Your task to perform on an android device: Clear the cart on amazon. Image 0: 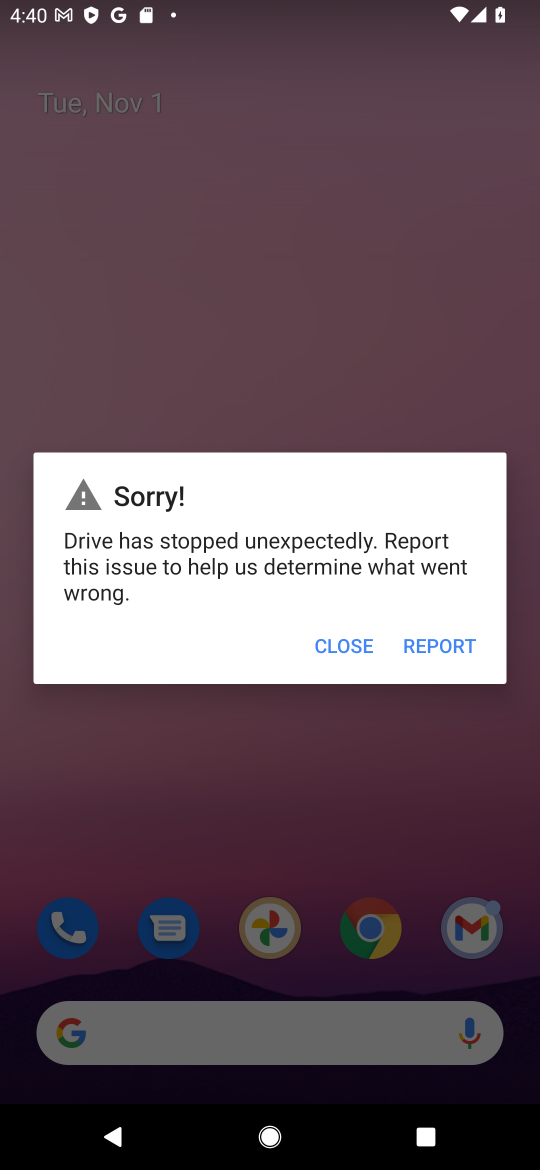
Step 0: press home button
Your task to perform on an android device: Clear the cart on amazon. Image 1: 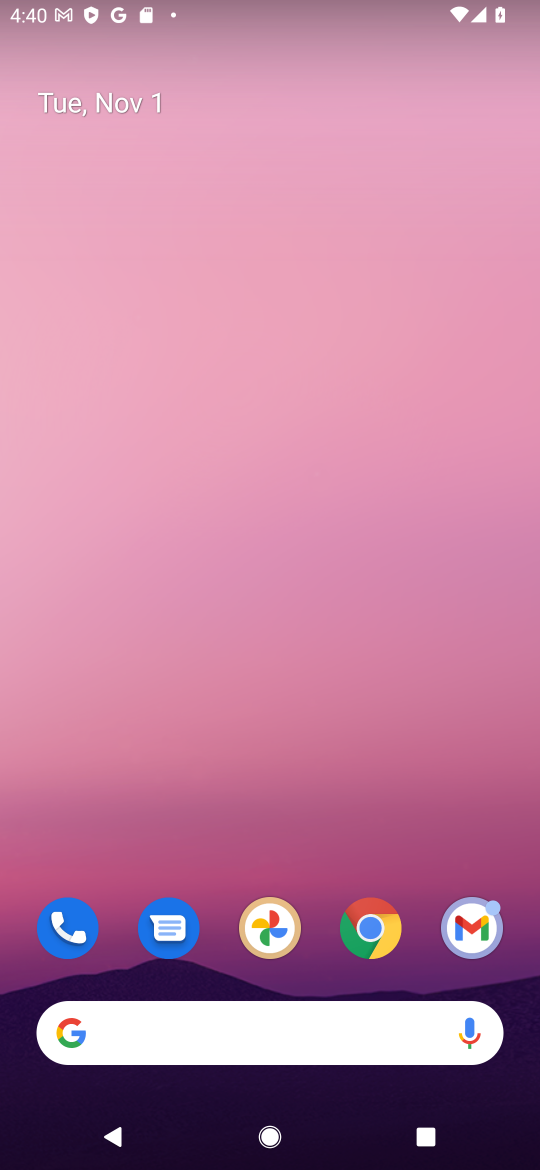
Step 1: click (368, 946)
Your task to perform on an android device: Clear the cart on amazon. Image 2: 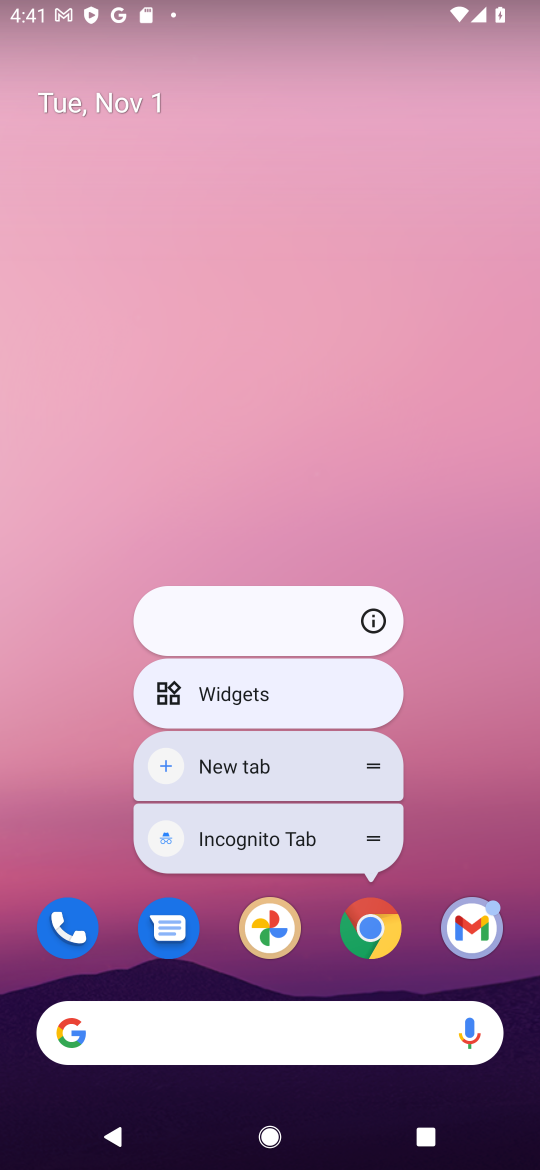
Step 2: click (386, 945)
Your task to perform on an android device: Clear the cart on amazon. Image 3: 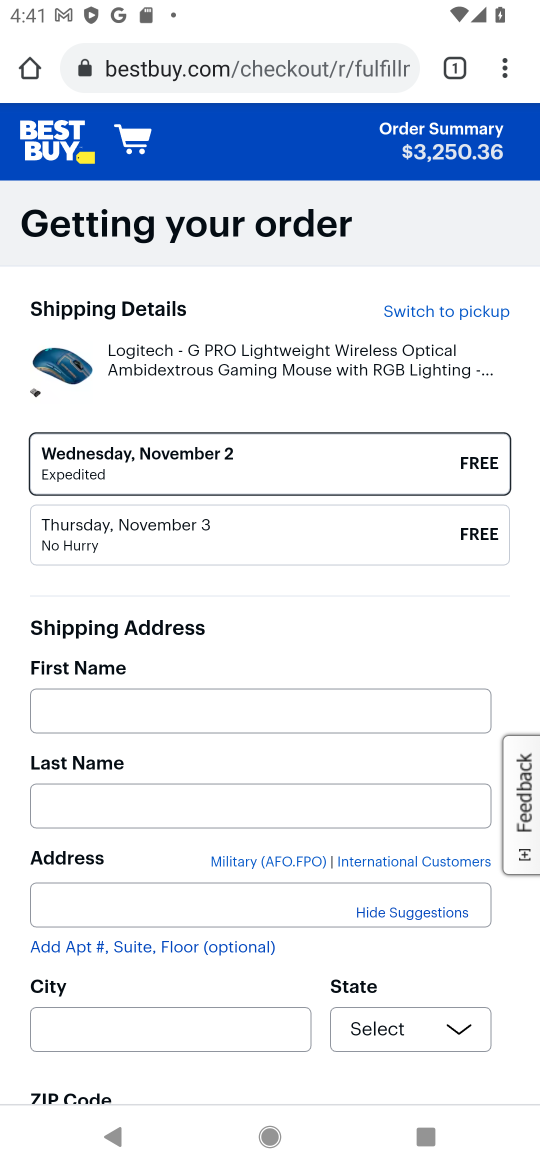
Step 3: click (253, 61)
Your task to perform on an android device: Clear the cart on amazon. Image 4: 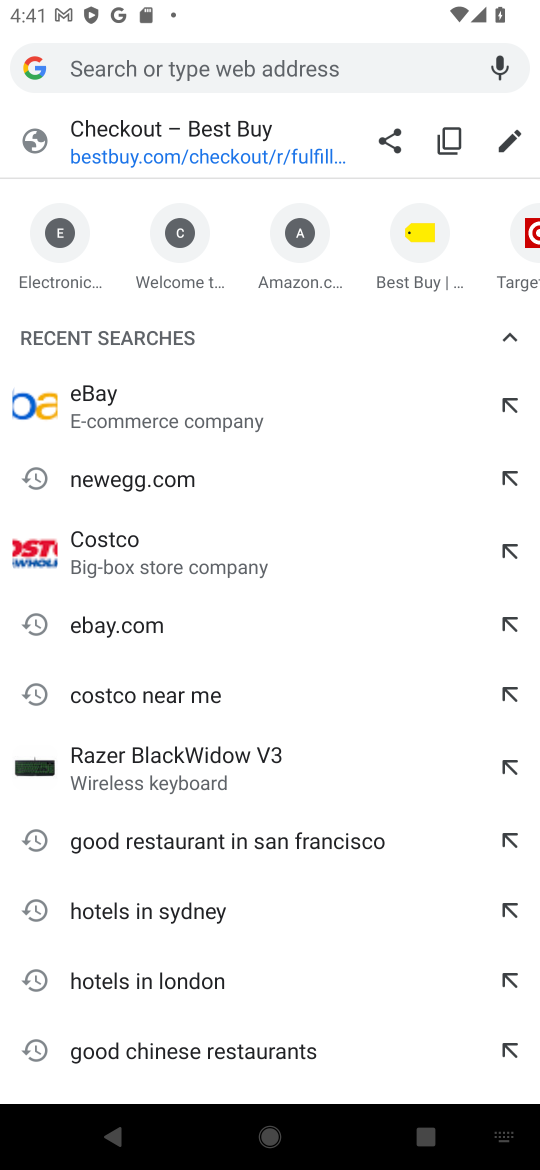
Step 4: type "amazon"
Your task to perform on an android device: Clear the cart on amazon. Image 5: 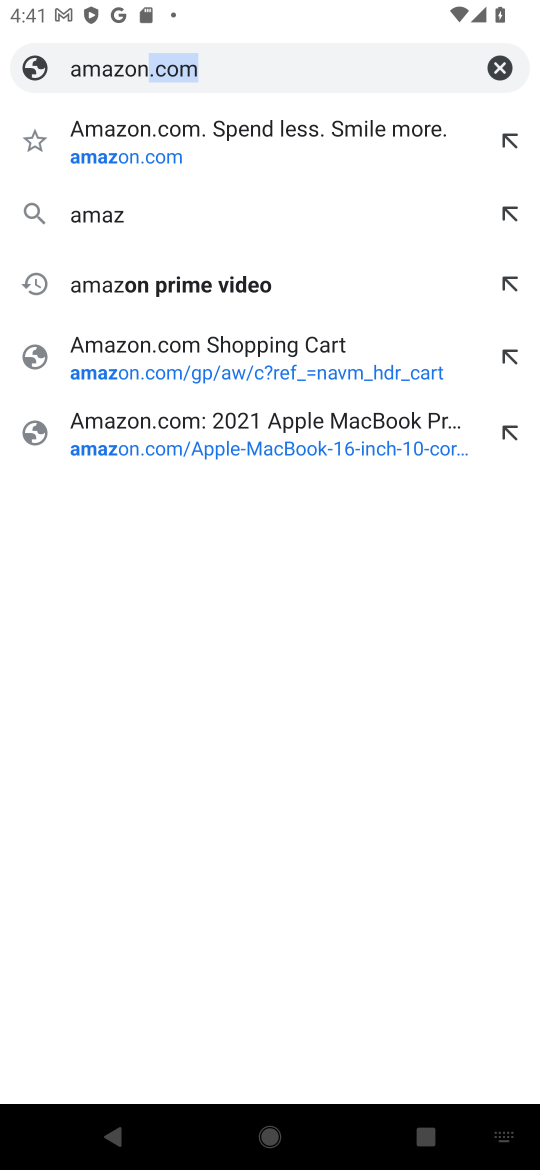
Step 5: type ""
Your task to perform on an android device: Clear the cart on amazon. Image 6: 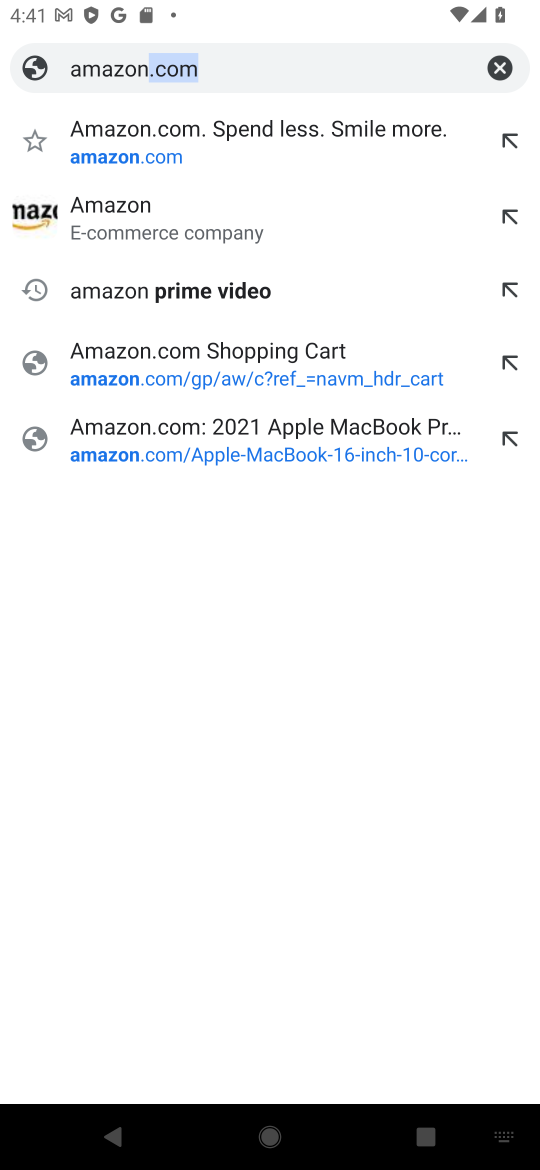
Step 6: press enter
Your task to perform on an android device: Clear the cart on amazon. Image 7: 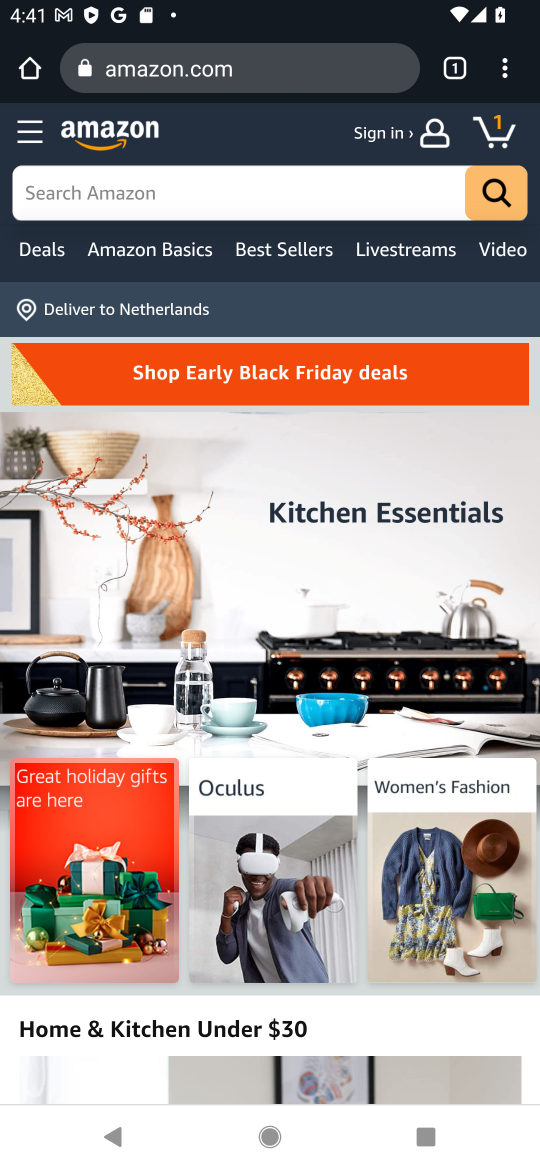
Step 7: click (503, 135)
Your task to perform on an android device: Clear the cart on amazon. Image 8: 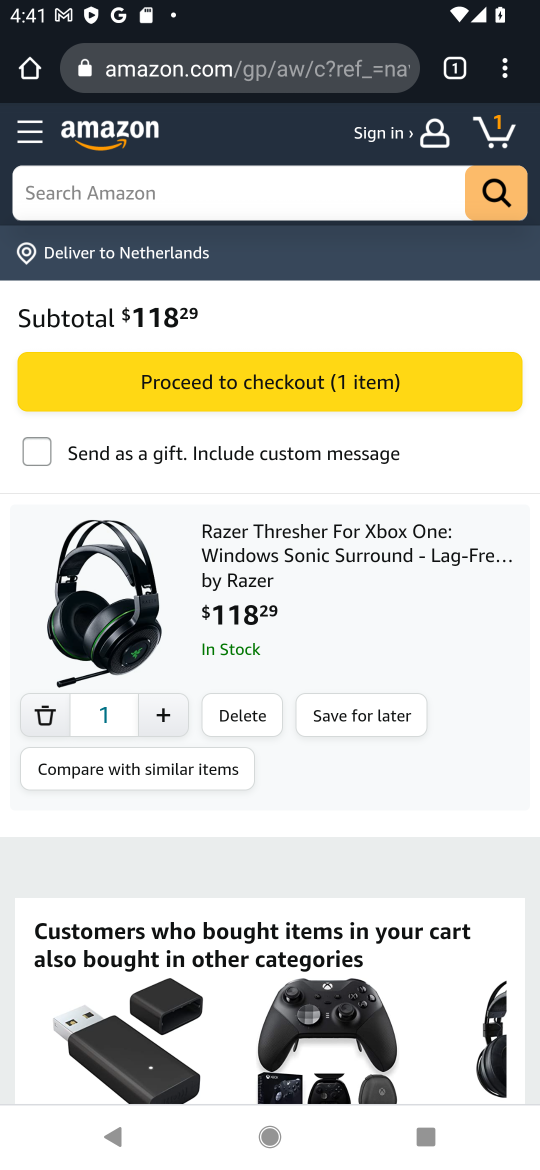
Step 8: click (49, 720)
Your task to perform on an android device: Clear the cart on amazon. Image 9: 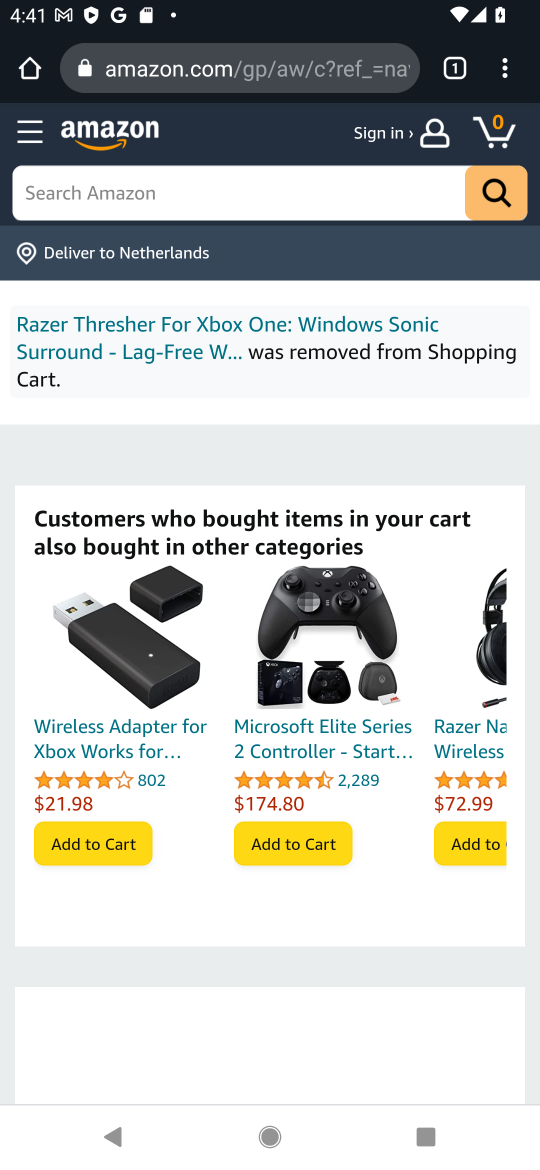
Step 9: task complete